Your task to perform on an android device: turn pop-ups off in chrome Image 0: 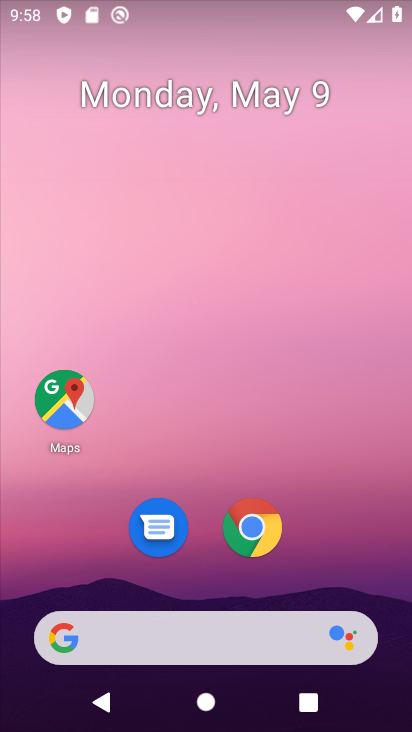
Step 0: click (250, 528)
Your task to perform on an android device: turn pop-ups off in chrome Image 1: 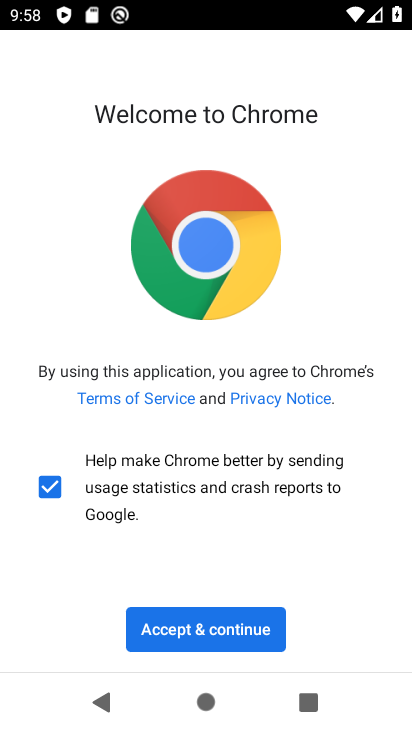
Step 1: click (245, 634)
Your task to perform on an android device: turn pop-ups off in chrome Image 2: 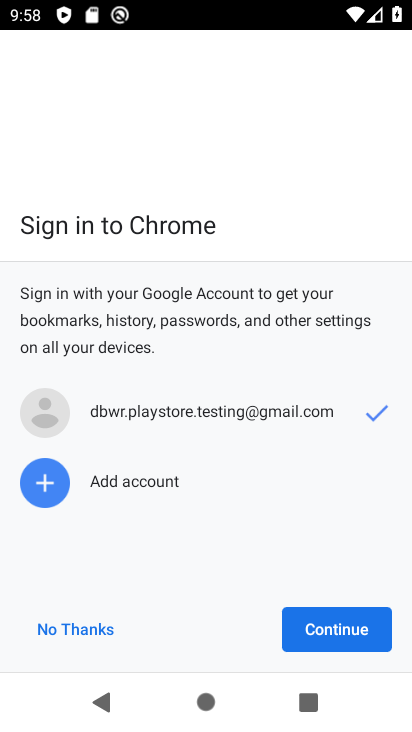
Step 2: click (314, 639)
Your task to perform on an android device: turn pop-ups off in chrome Image 3: 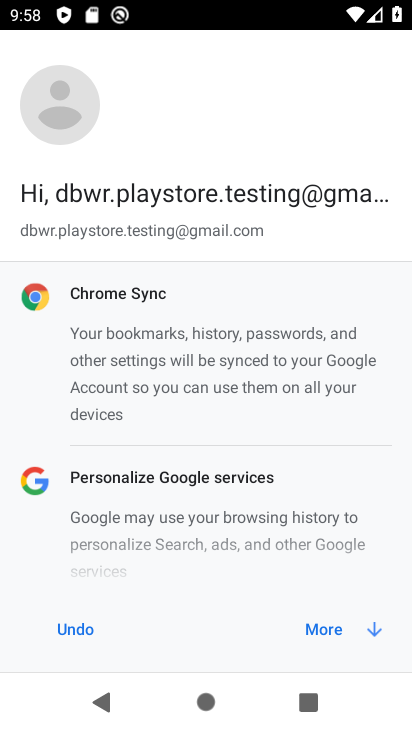
Step 3: click (339, 626)
Your task to perform on an android device: turn pop-ups off in chrome Image 4: 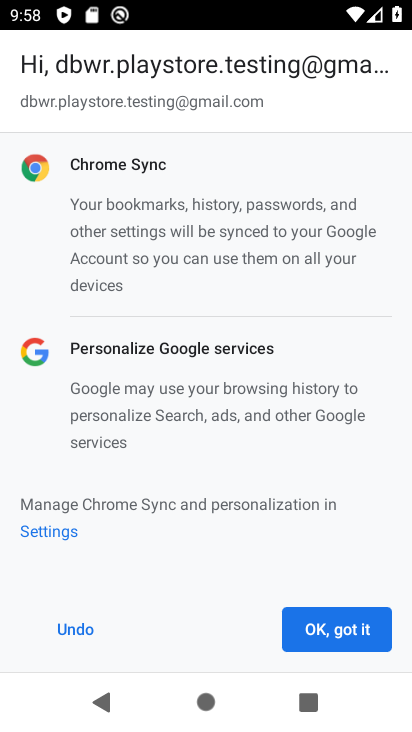
Step 4: click (339, 626)
Your task to perform on an android device: turn pop-ups off in chrome Image 5: 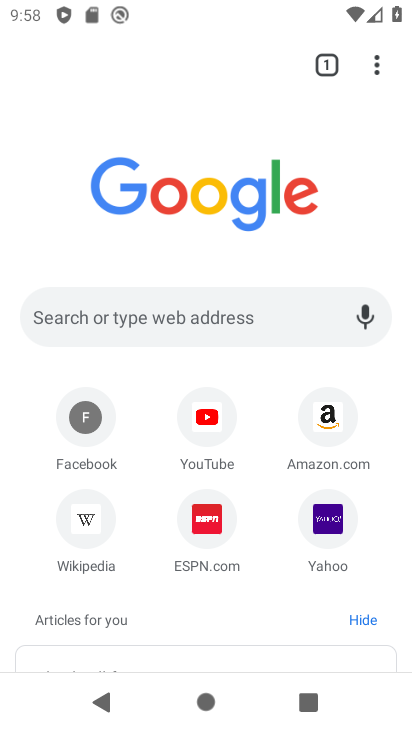
Step 5: click (378, 72)
Your task to perform on an android device: turn pop-ups off in chrome Image 6: 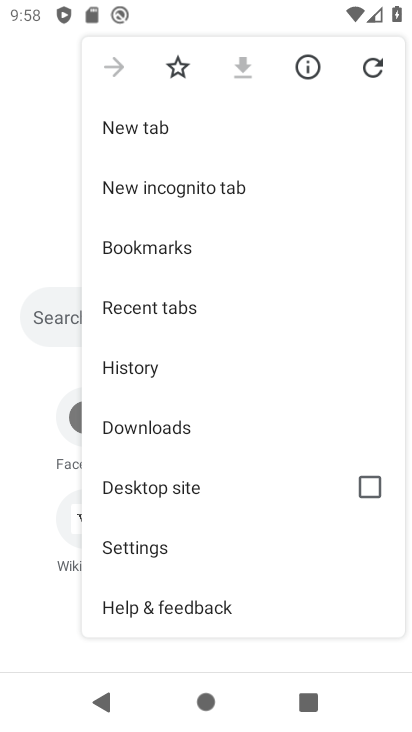
Step 6: click (127, 545)
Your task to perform on an android device: turn pop-ups off in chrome Image 7: 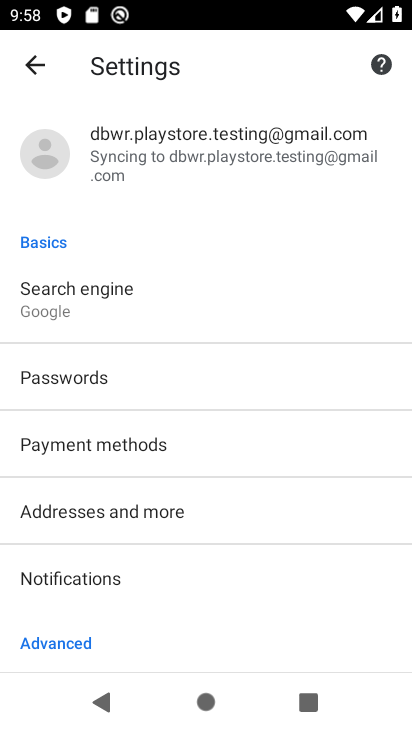
Step 7: drag from (153, 583) to (249, 326)
Your task to perform on an android device: turn pop-ups off in chrome Image 8: 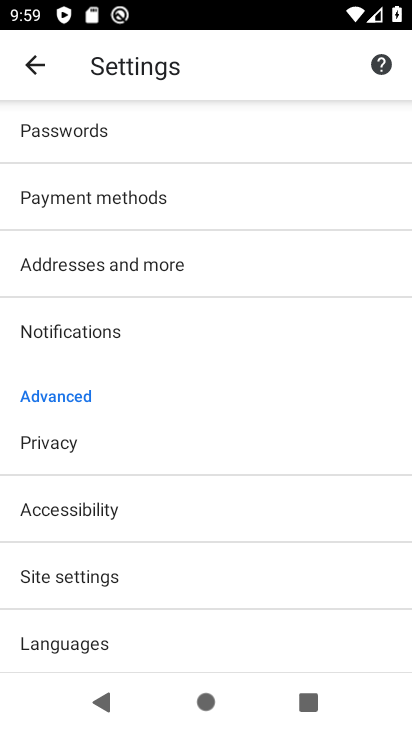
Step 8: drag from (165, 541) to (227, 385)
Your task to perform on an android device: turn pop-ups off in chrome Image 9: 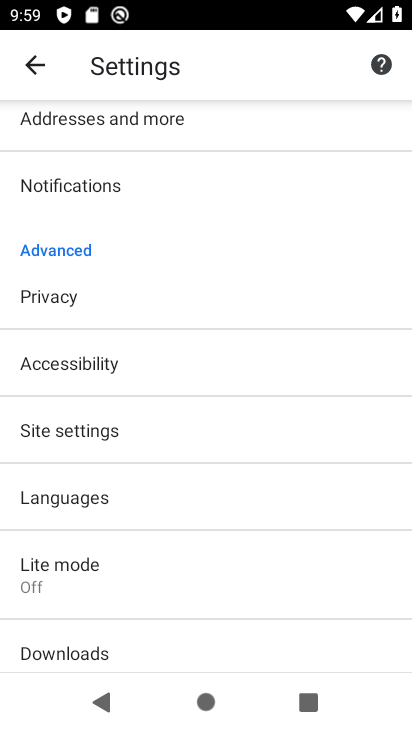
Step 9: drag from (102, 593) to (122, 501)
Your task to perform on an android device: turn pop-ups off in chrome Image 10: 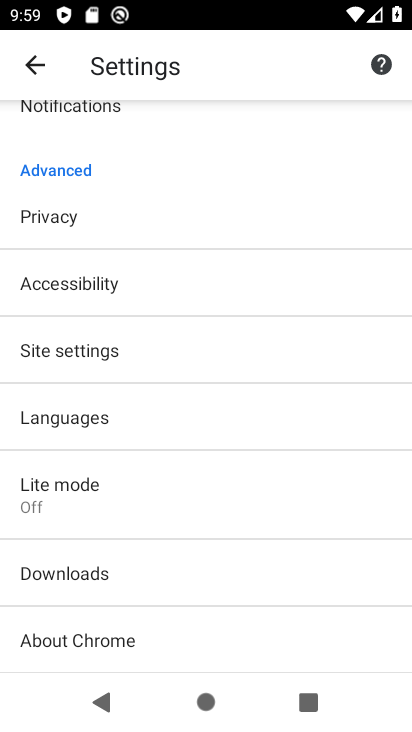
Step 10: click (55, 353)
Your task to perform on an android device: turn pop-ups off in chrome Image 11: 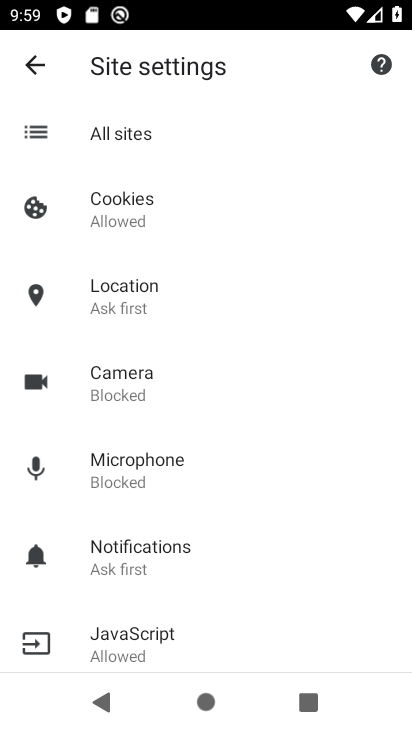
Step 11: drag from (142, 517) to (196, 360)
Your task to perform on an android device: turn pop-ups off in chrome Image 12: 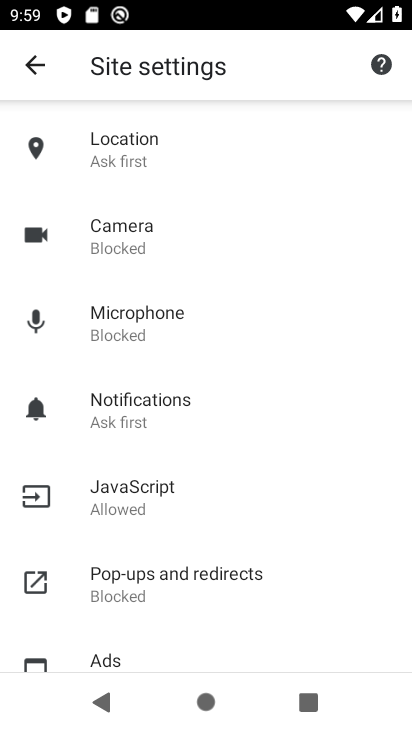
Step 12: drag from (130, 553) to (211, 418)
Your task to perform on an android device: turn pop-ups off in chrome Image 13: 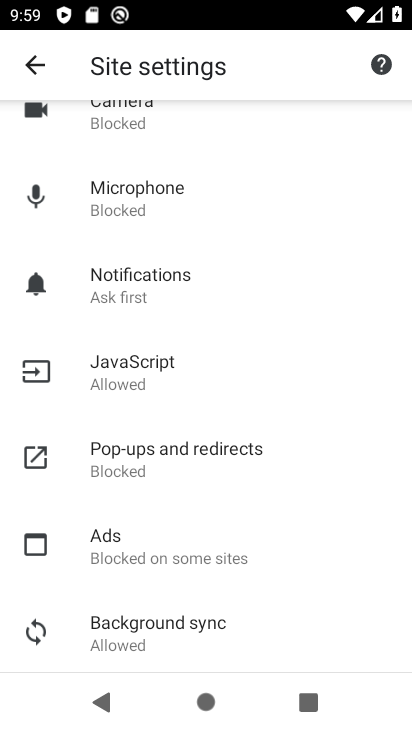
Step 13: drag from (151, 580) to (195, 477)
Your task to perform on an android device: turn pop-ups off in chrome Image 14: 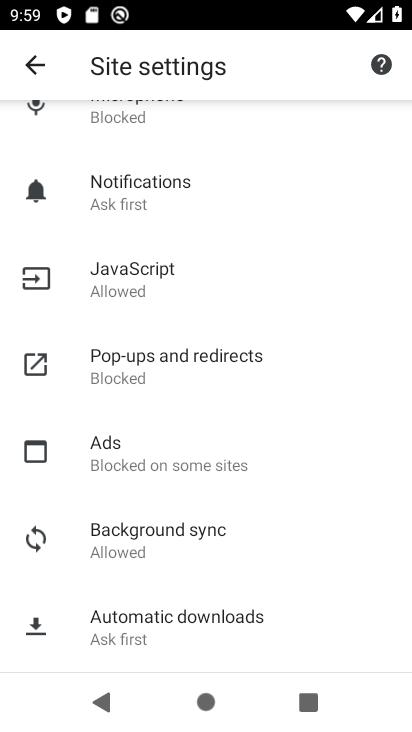
Step 14: click (165, 351)
Your task to perform on an android device: turn pop-ups off in chrome Image 15: 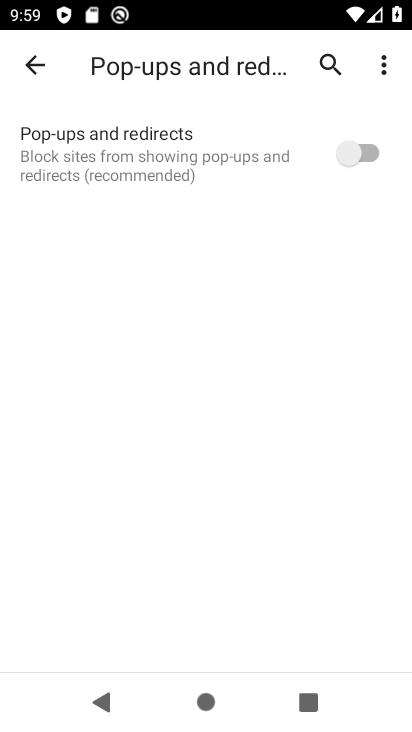
Step 15: task complete